Your task to perform on an android device: Open Amazon Image 0: 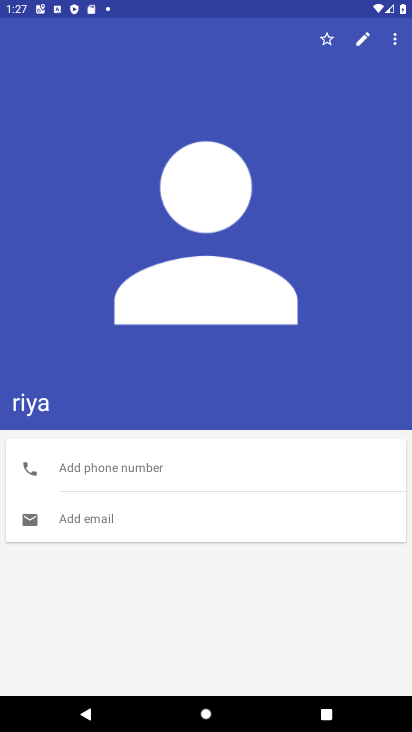
Step 0: press home button
Your task to perform on an android device: Open Amazon Image 1: 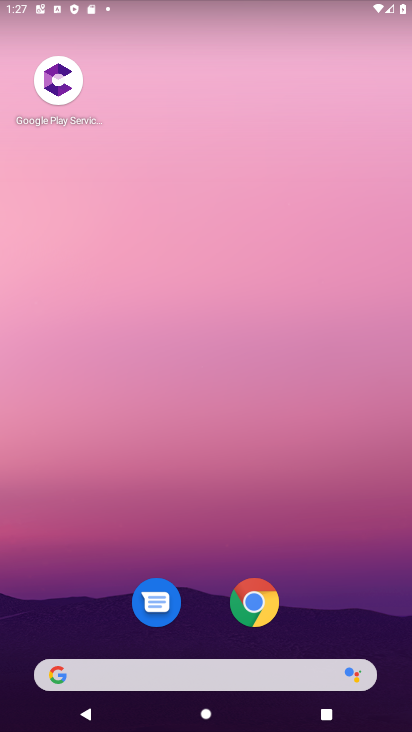
Step 1: drag from (380, 613) to (319, 40)
Your task to perform on an android device: Open Amazon Image 2: 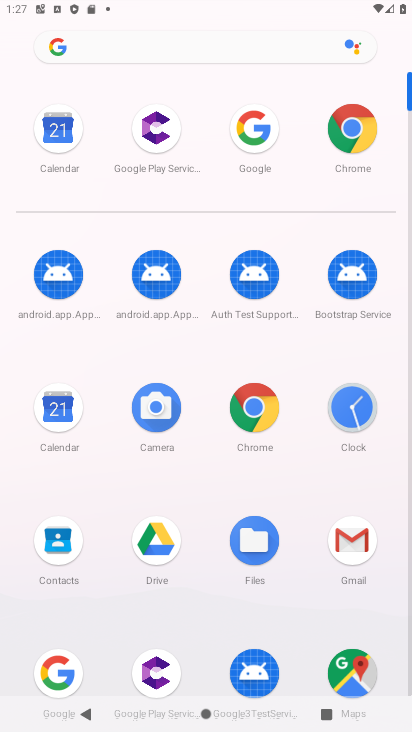
Step 2: click (55, 664)
Your task to perform on an android device: Open Amazon Image 3: 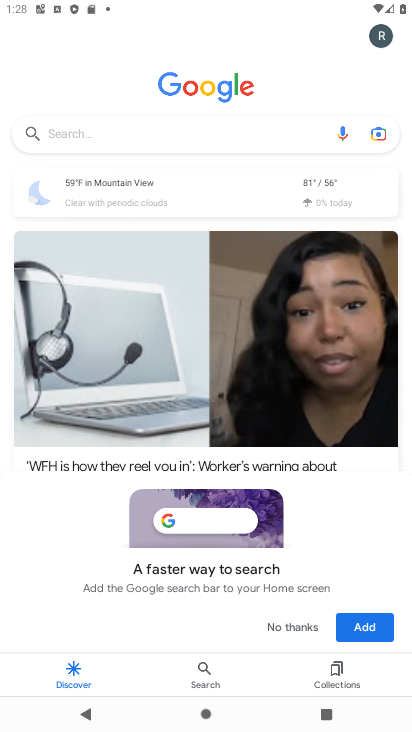
Step 3: click (93, 142)
Your task to perform on an android device: Open Amazon Image 4: 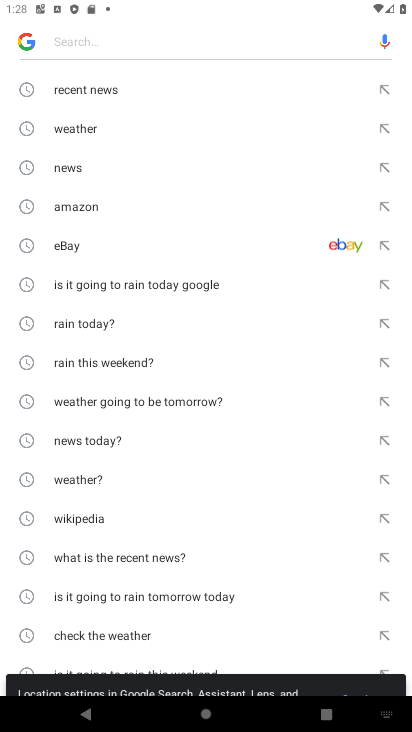
Step 4: click (93, 202)
Your task to perform on an android device: Open Amazon Image 5: 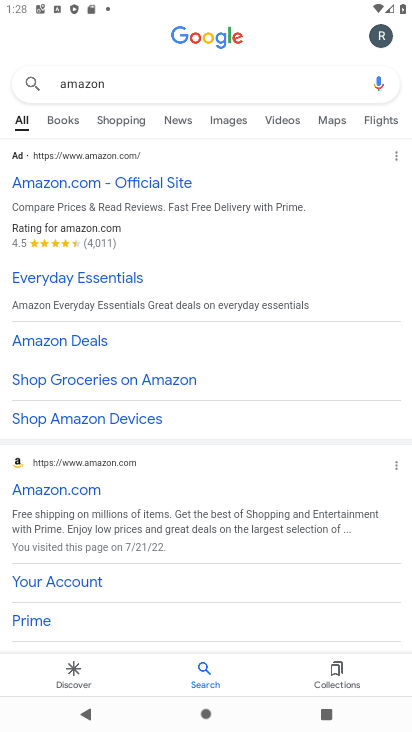
Step 5: task complete